Your task to perform on an android device: Open calendar and show me the first week of next month Image 0: 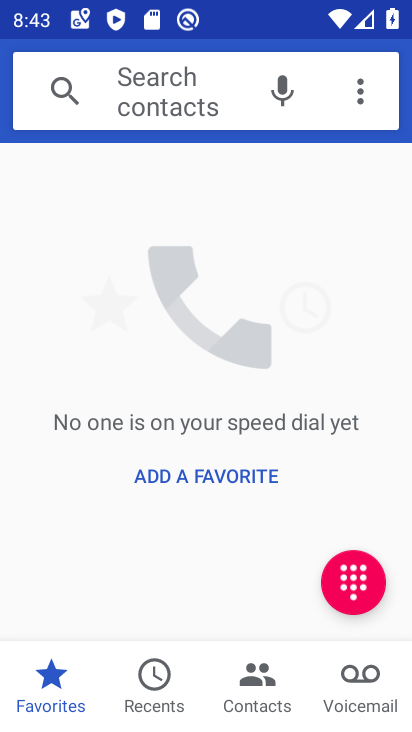
Step 0: press home button
Your task to perform on an android device: Open calendar and show me the first week of next month Image 1: 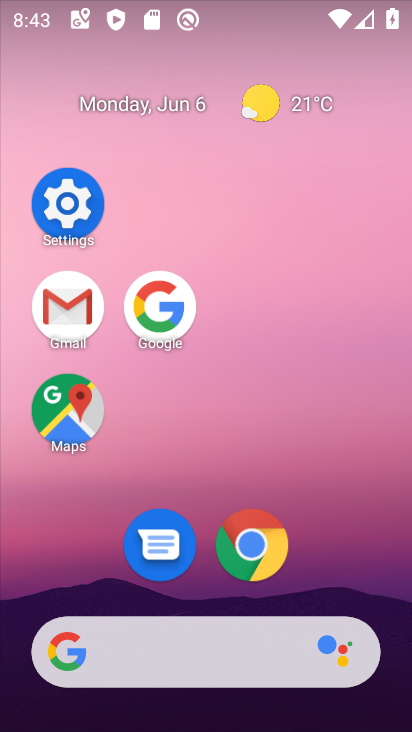
Step 1: drag from (377, 537) to (385, 122)
Your task to perform on an android device: Open calendar and show me the first week of next month Image 2: 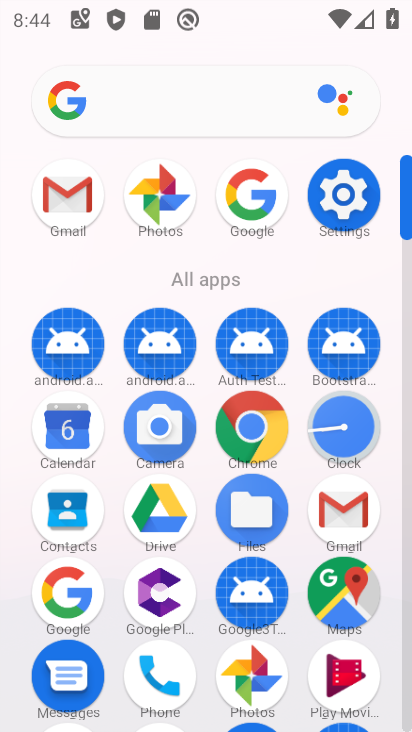
Step 2: drag from (66, 443) to (133, 241)
Your task to perform on an android device: Open calendar and show me the first week of next month Image 3: 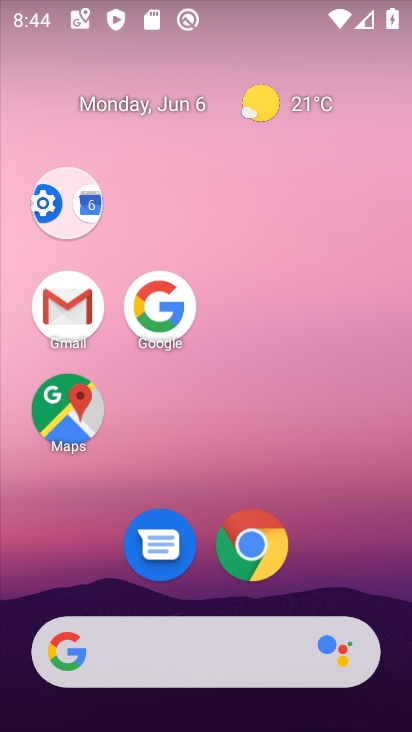
Step 3: click (64, 201)
Your task to perform on an android device: Open calendar and show me the first week of next month Image 4: 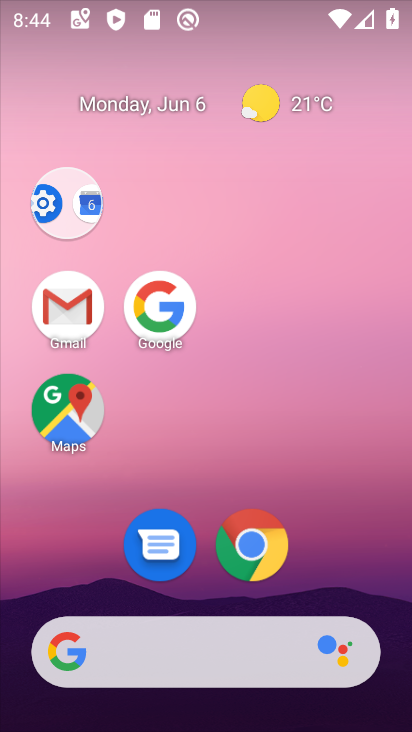
Step 4: click (79, 197)
Your task to perform on an android device: Open calendar and show me the first week of next month Image 5: 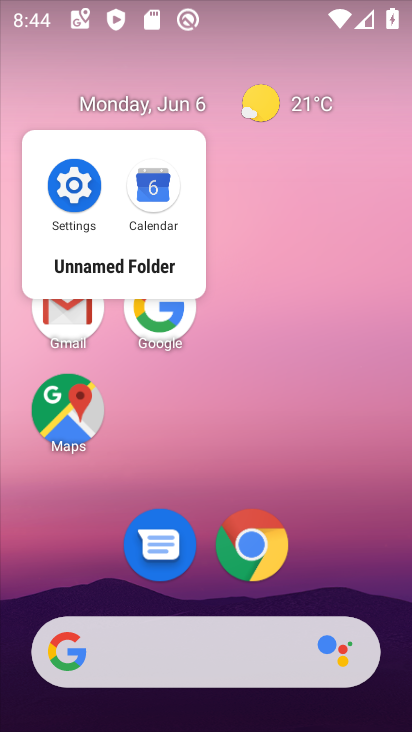
Step 5: drag from (157, 184) to (180, 226)
Your task to perform on an android device: Open calendar and show me the first week of next month Image 6: 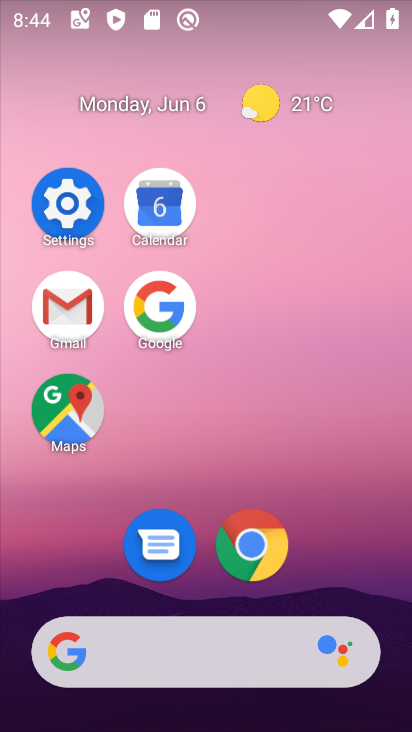
Step 6: click (175, 222)
Your task to perform on an android device: Open calendar and show me the first week of next month Image 7: 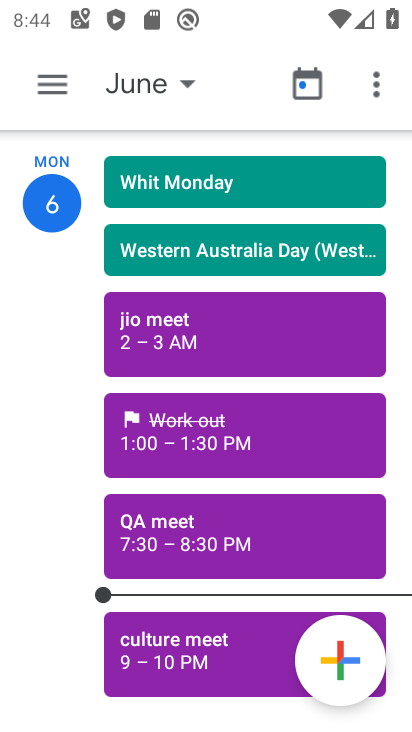
Step 7: click (161, 95)
Your task to perform on an android device: Open calendar and show me the first week of next month Image 8: 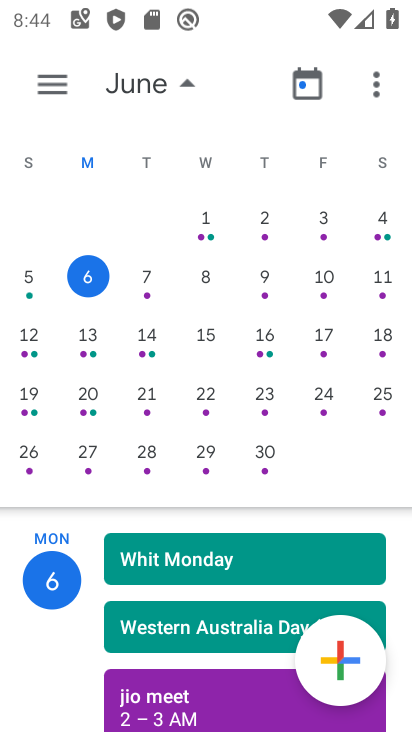
Step 8: drag from (384, 288) to (29, 270)
Your task to perform on an android device: Open calendar and show me the first week of next month Image 9: 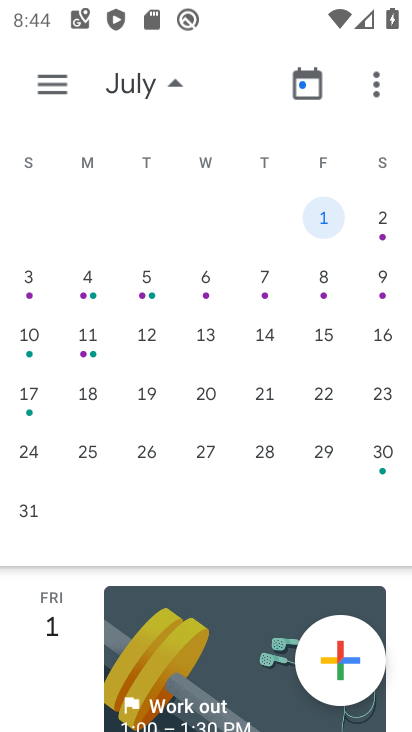
Step 9: click (71, 75)
Your task to perform on an android device: Open calendar and show me the first week of next month Image 10: 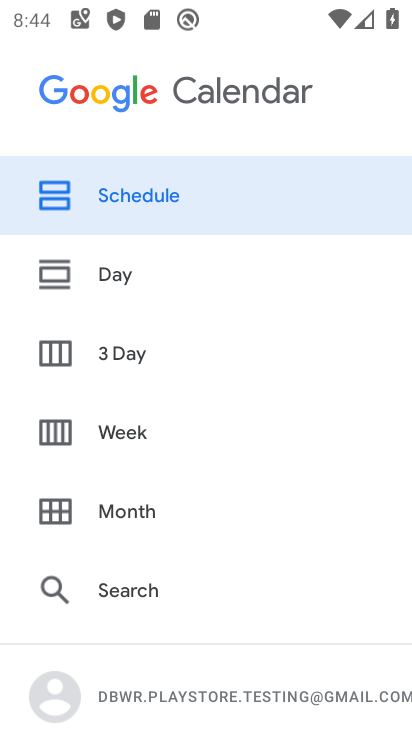
Step 10: click (129, 430)
Your task to perform on an android device: Open calendar and show me the first week of next month Image 11: 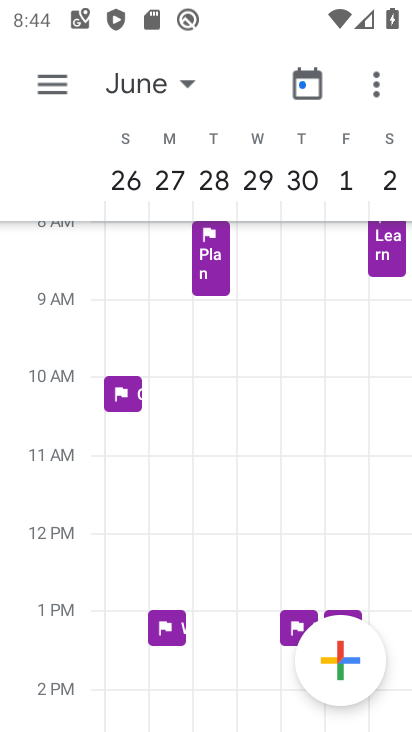
Step 11: task complete